Your task to perform on an android device: Go to eBay Image 0: 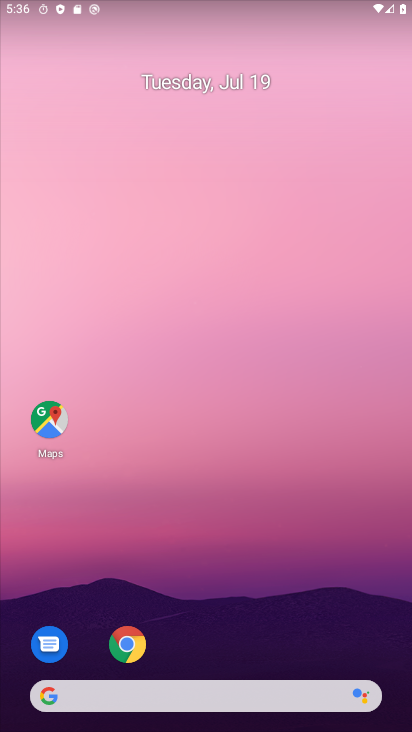
Step 0: click (179, 694)
Your task to perform on an android device: Go to eBay Image 1: 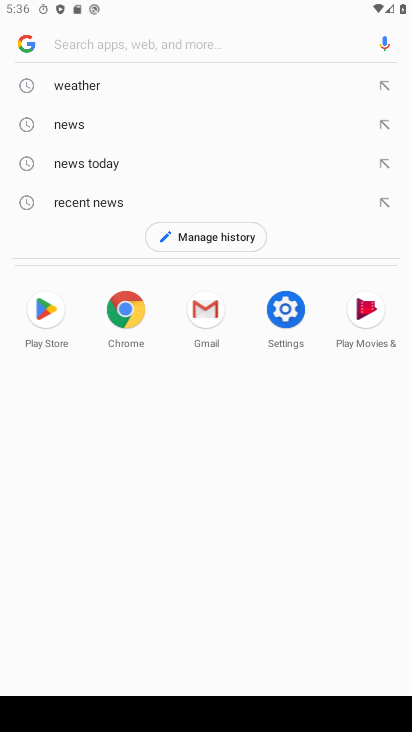
Step 1: type "eBay"
Your task to perform on an android device: Go to eBay Image 2: 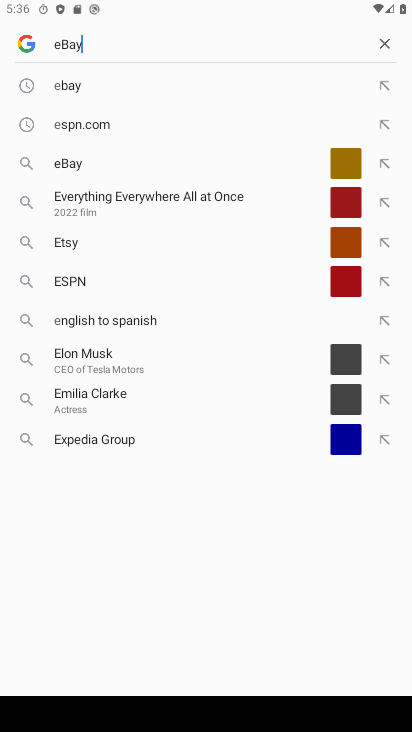
Step 2: press enter
Your task to perform on an android device: Go to eBay Image 3: 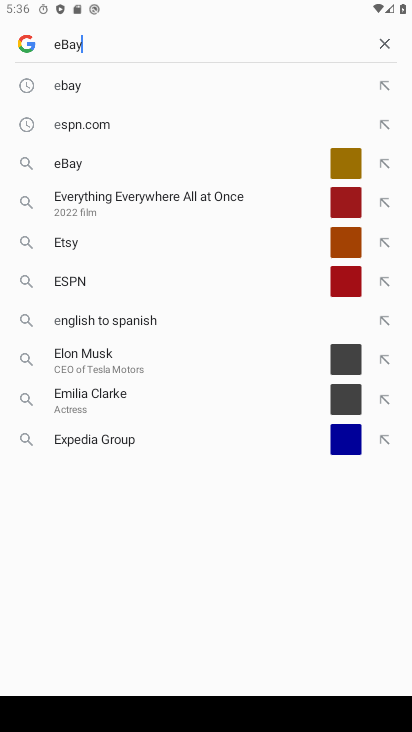
Step 3: type ""
Your task to perform on an android device: Go to eBay Image 4: 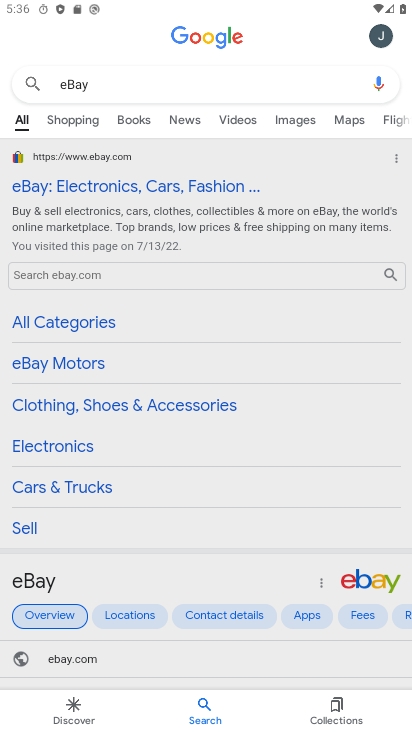
Step 4: task complete